Your task to perform on an android device: What's the weather going to be tomorrow? Image 0: 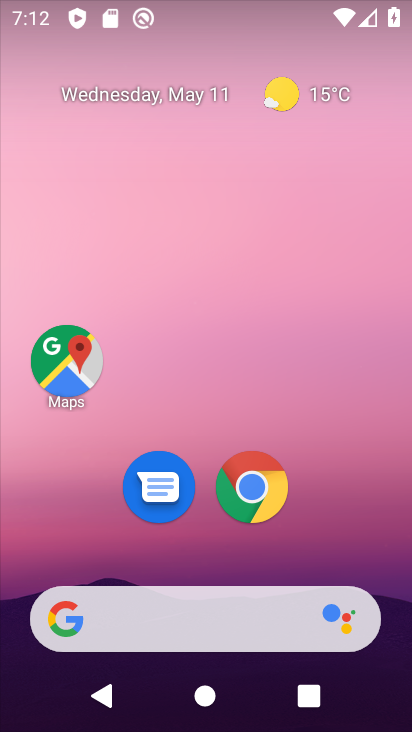
Step 0: drag from (320, 651) to (173, 295)
Your task to perform on an android device: What's the weather going to be tomorrow? Image 1: 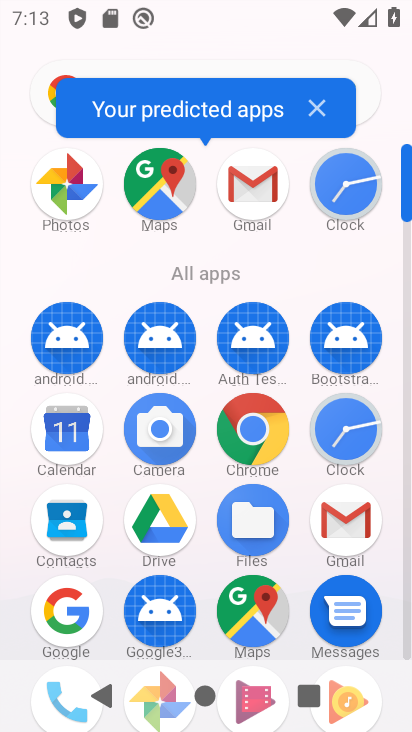
Step 1: click (311, 112)
Your task to perform on an android device: What's the weather going to be tomorrow? Image 2: 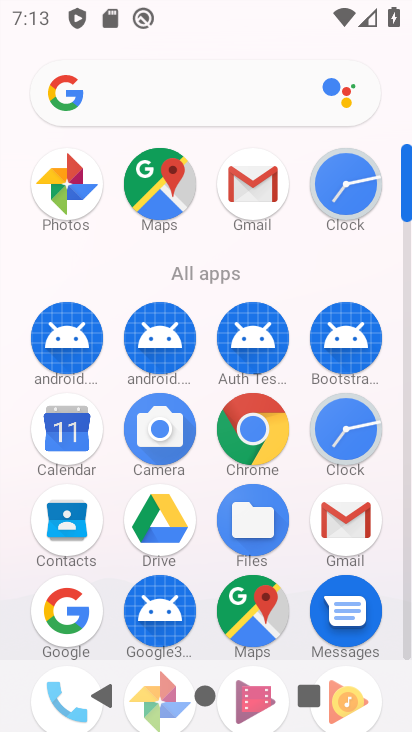
Step 2: click (185, 99)
Your task to perform on an android device: What's the weather going to be tomorrow? Image 3: 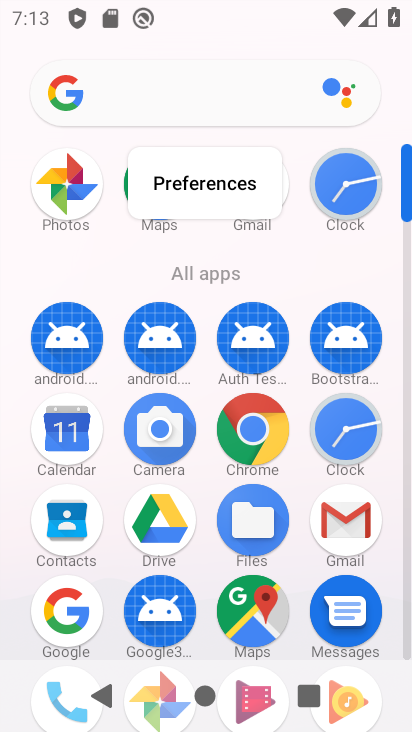
Step 3: click (171, 101)
Your task to perform on an android device: What's the weather going to be tomorrow? Image 4: 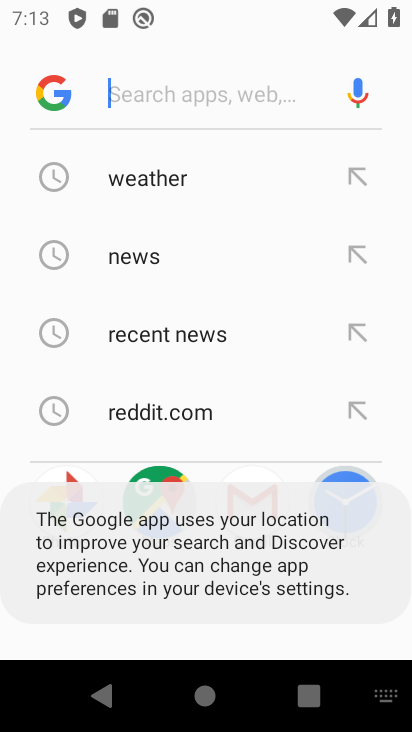
Step 4: click (153, 184)
Your task to perform on an android device: What's the weather going to be tomorrow? Image 5: 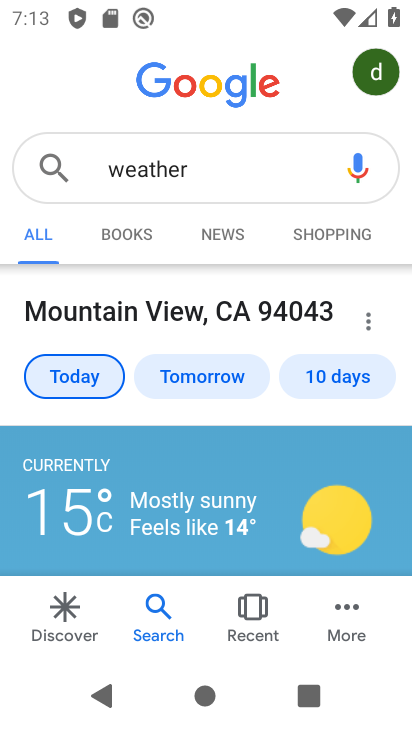
Step 5: click (224, 368)
Your task to perform on an android device: What's the weather going to be tomorrow? Image 6: 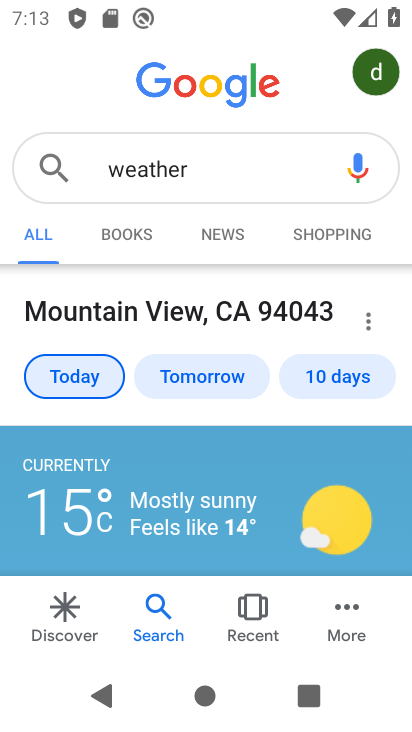
Step 6: click (225, 368)
Your task to perform on an android device: What's the weather going to be tomorrow? Image 7: 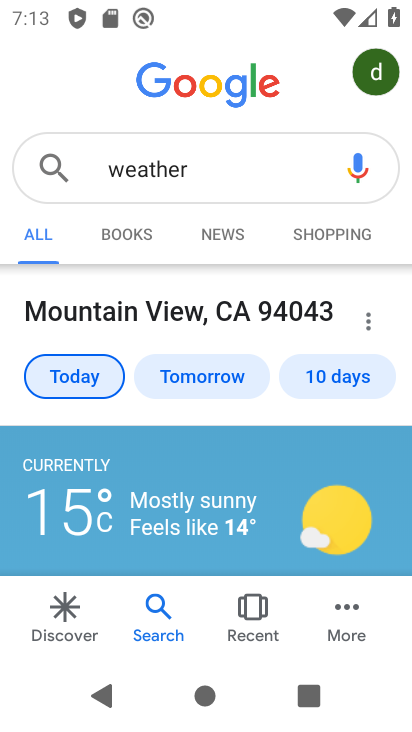
Step 7: click (223, 372)
Your task to perform on an android device: What's the weather going to be tomorrow? Image 8: 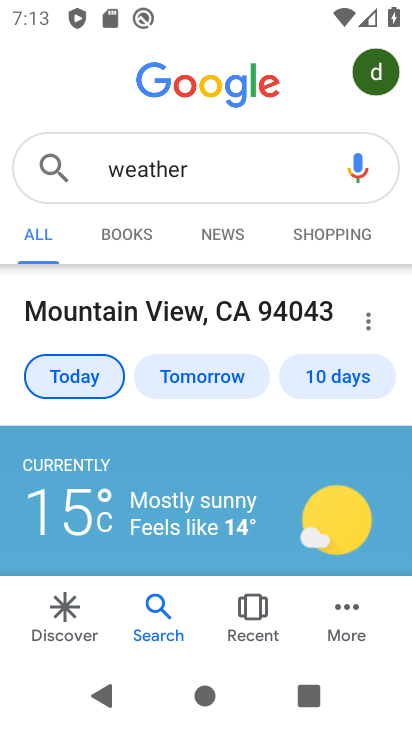
Step 8: task complete